Your task to perform on an android device: see creations saved in the google photos Image 0: 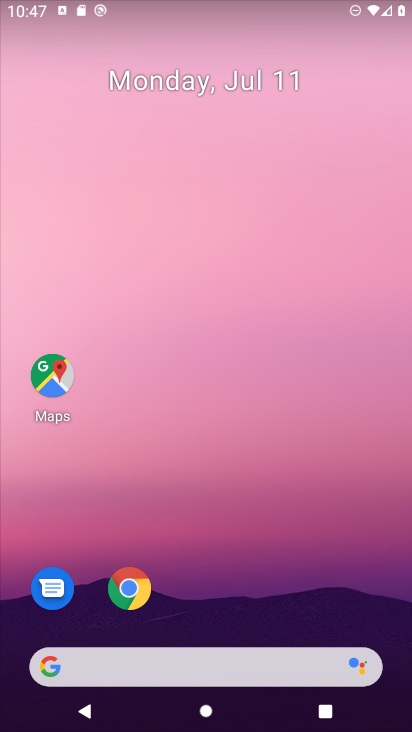
Step 0: drag from (390, 633) to (2, 124)
Your task to perform on an android device: see creations saved in the google photos Image 1: 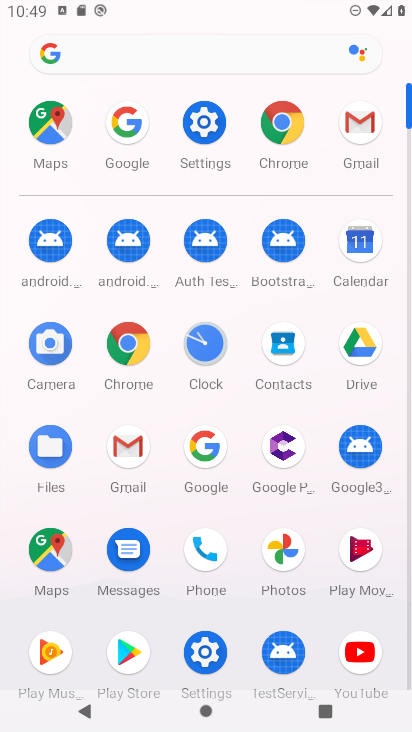
Step 1: click (279, 549)
Your task to perform on an android device: see creations saved in the google photos Image 2: 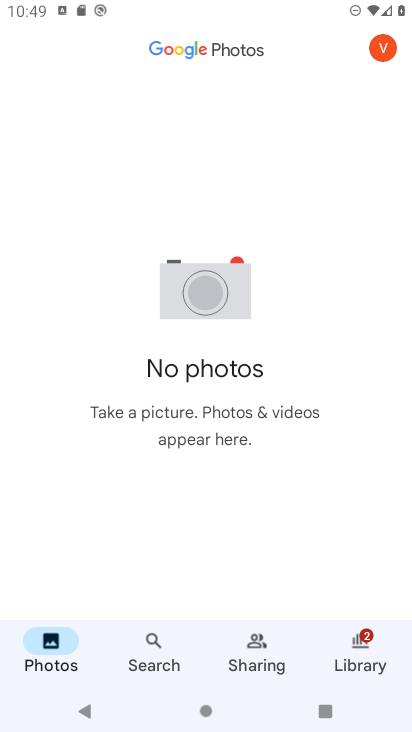
Step 2: click (220, 43)
Your task to perform on an android device: see creations saved in the google photos Image 3: 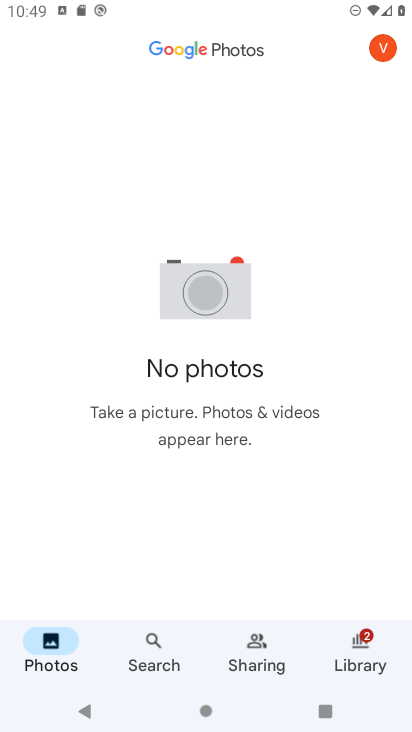
Step 3: click (198, 55)
Your task to perform on an android device: see creations saved in the google photos Image 4: 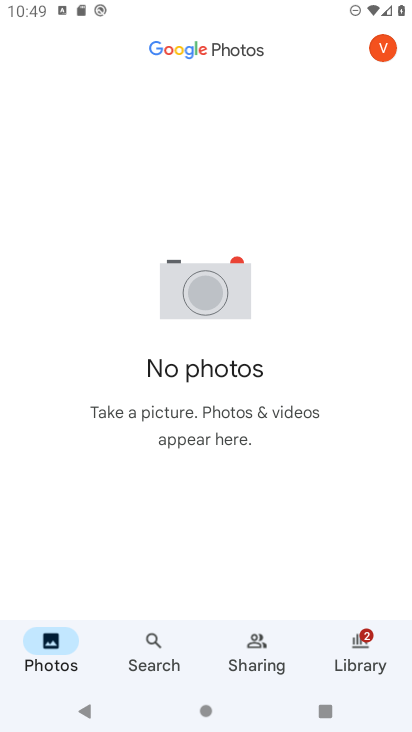
Step 4: task complete